Your task to perform on an android device: Search for Mexican restaurants on Maps Image 0: 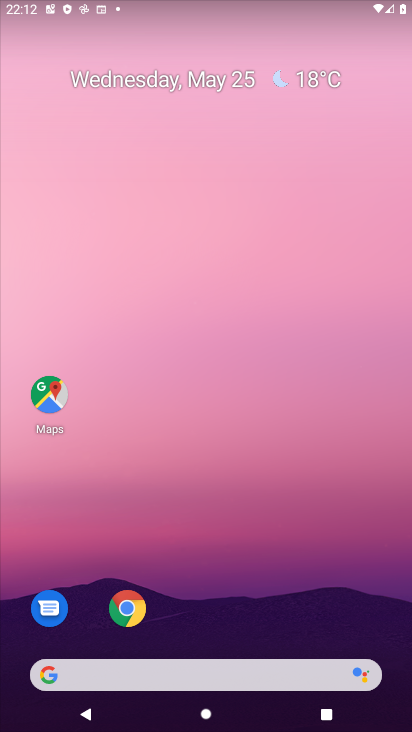
Step 0: click (53, 385)
Your task to perform on an android device: Search for Mexican restaurants on Maps Image 1: 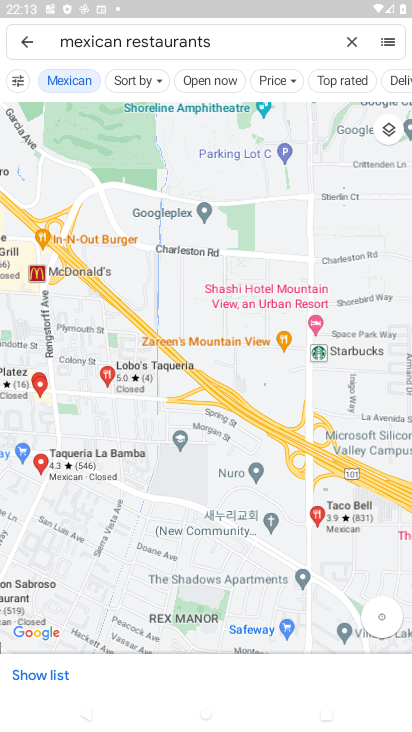
Step 1: task complete